Your task to perform on an android device: What's on my calendar tomorrow? Image 0: 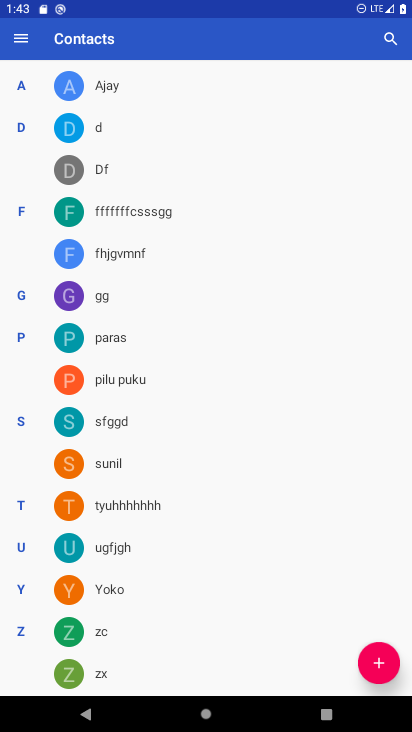
Step 0: press home button
Your task to perform on an android device: What's on my calendar tomorrow? Image 1: 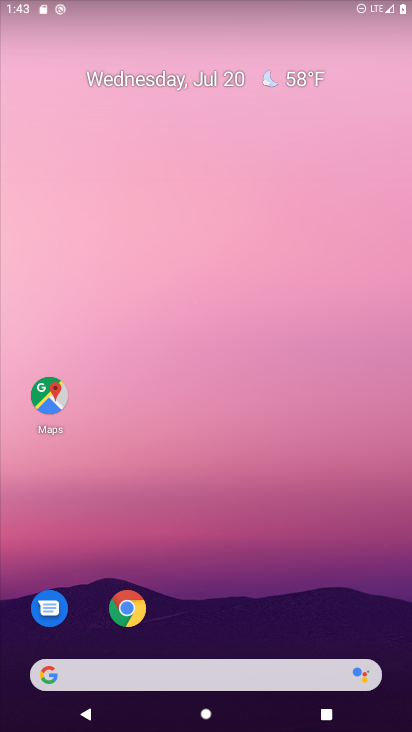
Step 1: drag from (231, 664) to (235, 128)
Your task to perform on an android device: What's on my calendar tomorrow? Image 2: 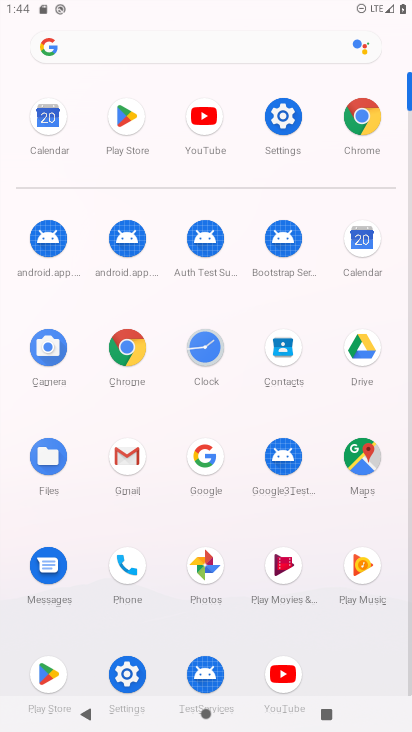
Step 2: click (370, 245)
Your task to perform on an android device: What's on my calendar tomorrow? Image 3: 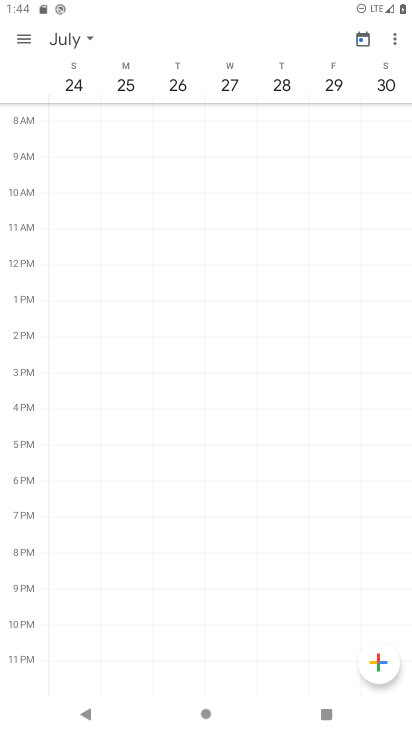
Step 3: click (88, 35)
Your task to perform on an android device: What's on my calendar tomorrow? Image 4: 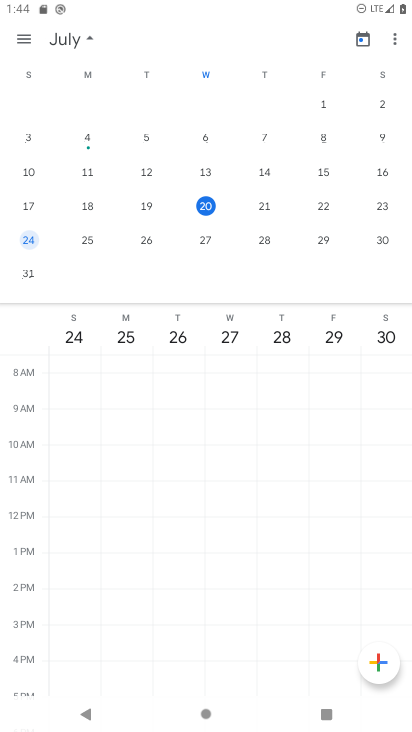
Step 4: click (263, 204)
Your task to perform on an android device: What's on my calendar tomorrow? Image 5: 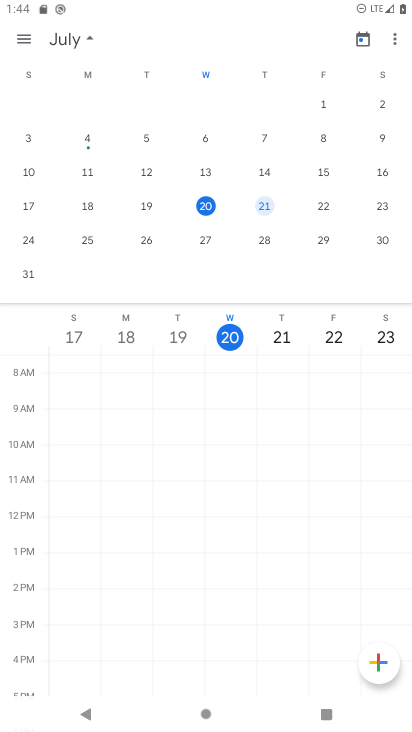
Step 5: click (267, 198)
Your task to perform on an android device: What's on my calendar tomorrow? Image 6: 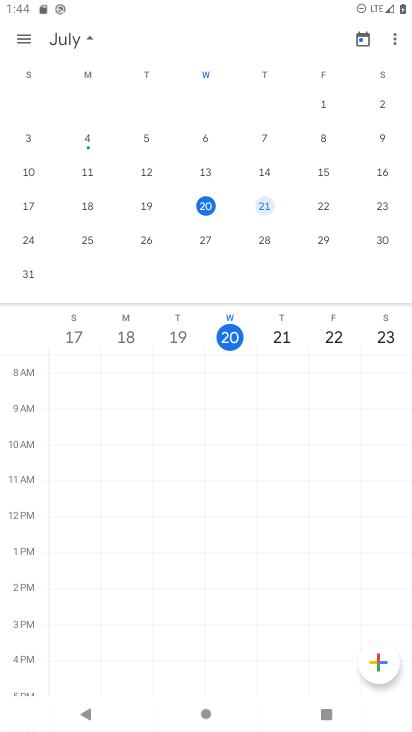
Step 6: click (264, 198)
Your task to perform on an android device: What's on my calendar tomorrow? Image 7: 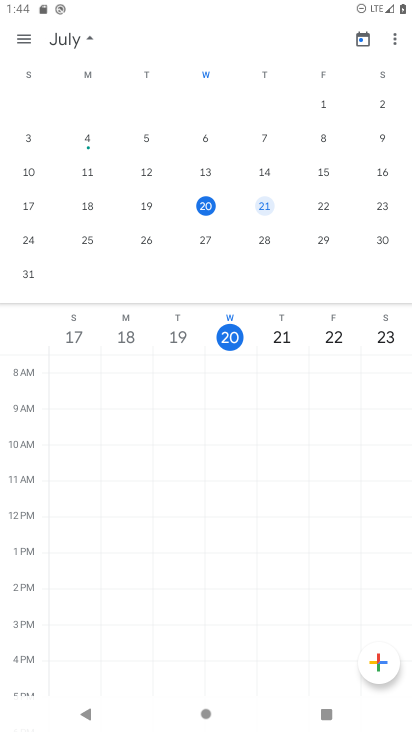
Step 7: click (264, 198)
Your task to perform on an android device: What's on my calendar tomorrow? Image 8: 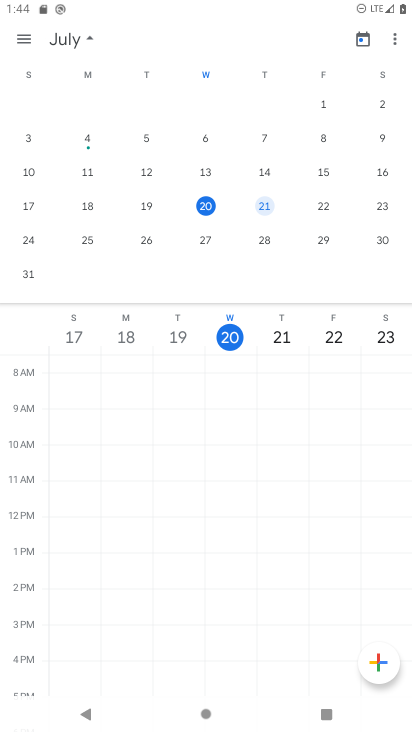
Step 8: click (264, 198)
Your task to perform on an android device: What's on my calendar tomorrow? Image 9: 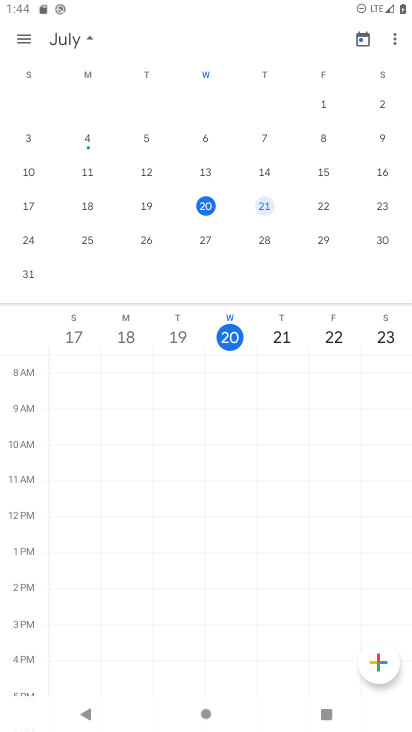
Step 9: click (270, 204)
Your task to perform on an android device: What's on my calendar tomorrow? Image 10: 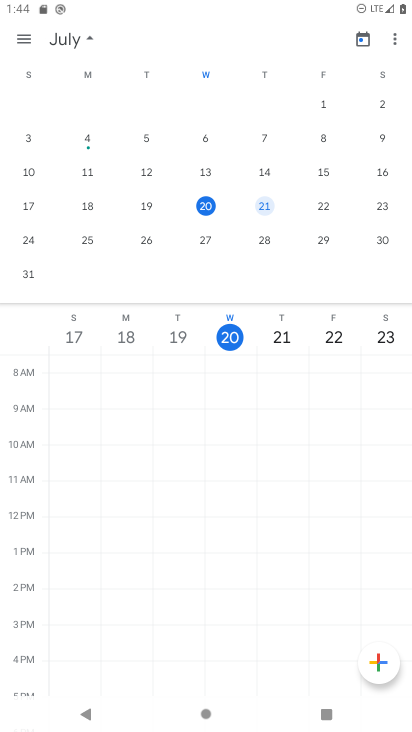
Step 10: click (270, 204)
Your task to perform on an android device: What's on my calendar tomorrow? Image 11: 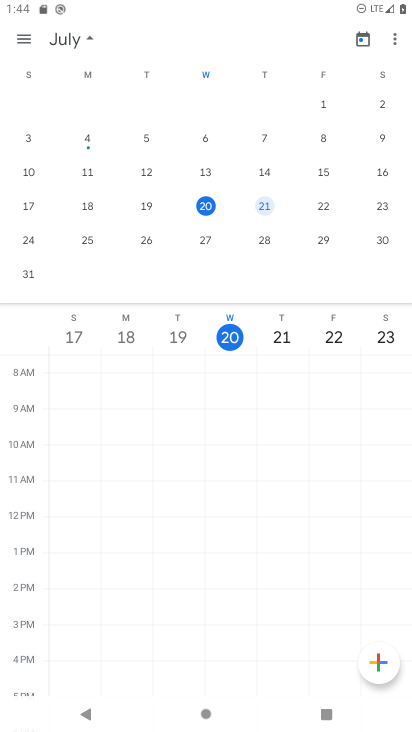
Step 11: click (270, 204)
Your task to perform on an android device: What's on my calendar tomorrow? Image 12: 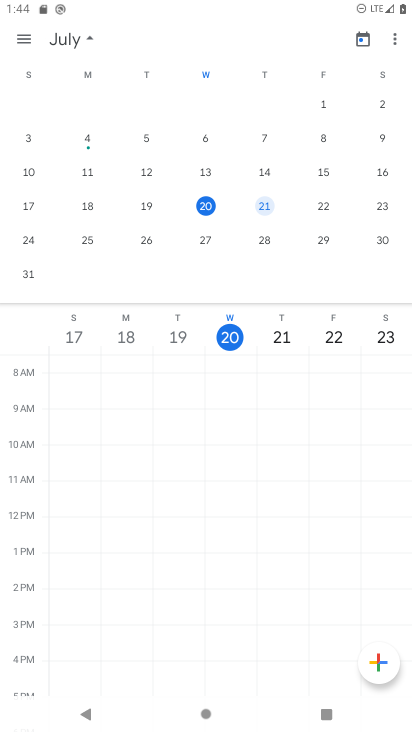
Step 12: click (240, 193)
Your task to perform on an android device: What's on my calendar tomorrow? Image 13: 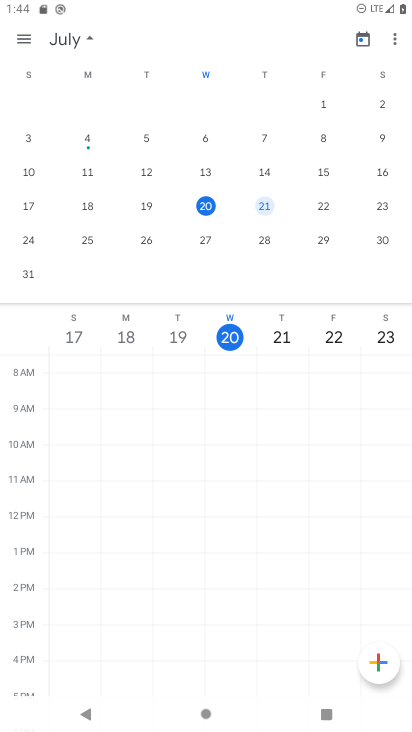
Step 13: click (272, 334)
Your task to perform on an android device: What's on my calendar tomorrow? Image 14: 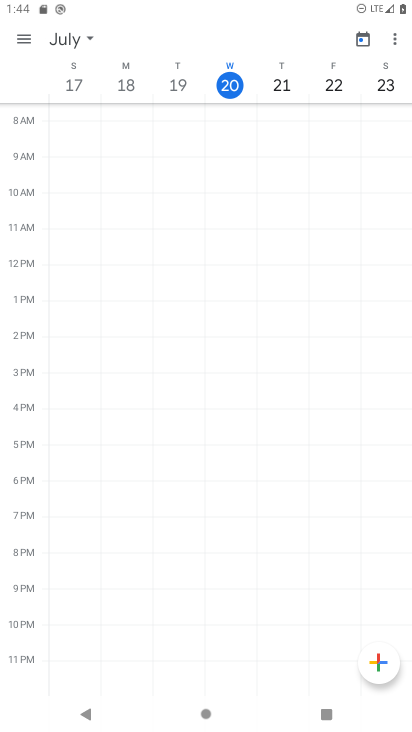
Step 14: click (281, 76)
Your task to perform on an android device: What's on my calendar tomorrow? Image 15: 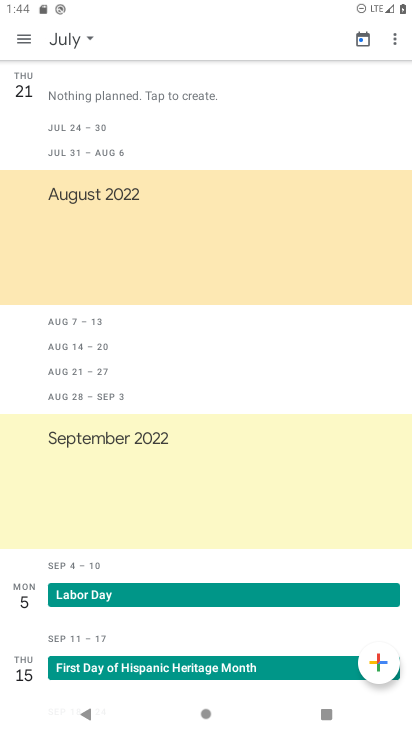
Step 15: task complete